Your task to perform on an android device: Go to Yahoo.com Image 0: 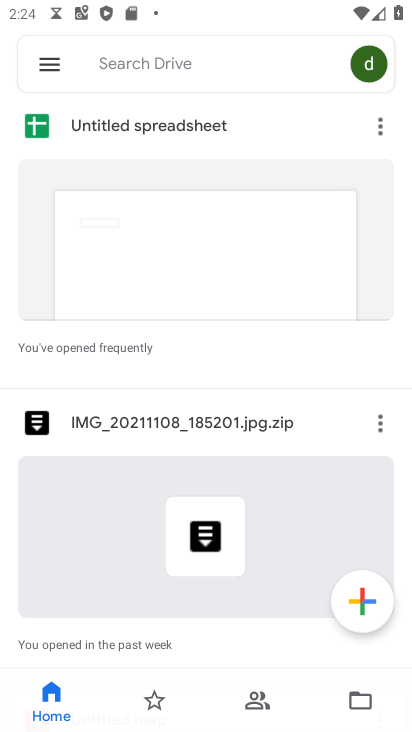
Step 0: press home button
Your task to perform on an android device: Go to Yahoo.com Image 1: 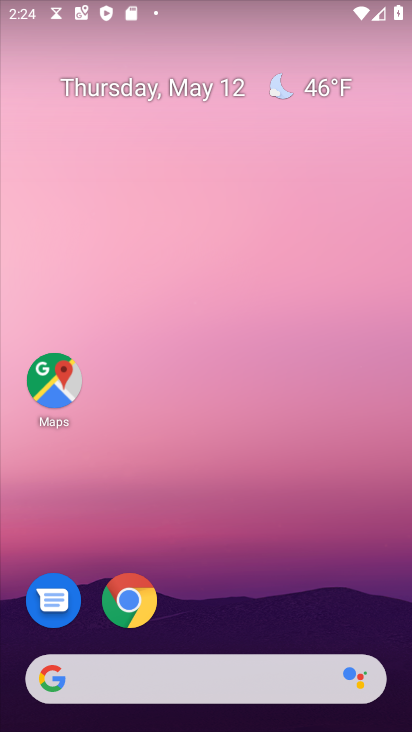
Step 1: click (130, 591)
Your task to perform on an android device: Go to Yahoo.com Image 2: 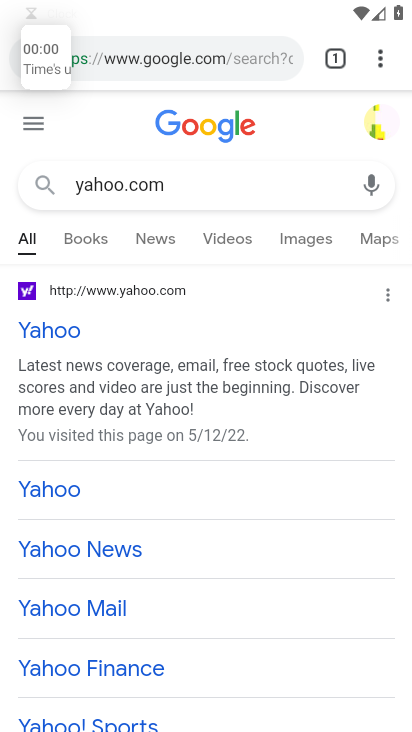
Step 2: click (82, 314)
Your task to perform on an android device: Go to Yahoo.com Image 3: 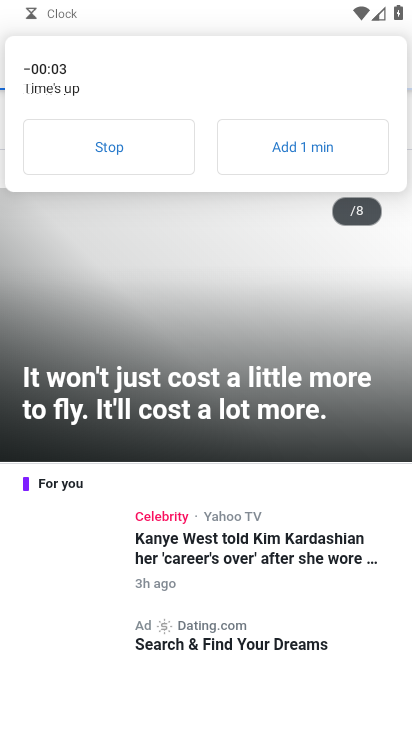
Step 3: task complete